Your task to perform on an android device: When is my next appointment? Image 0: 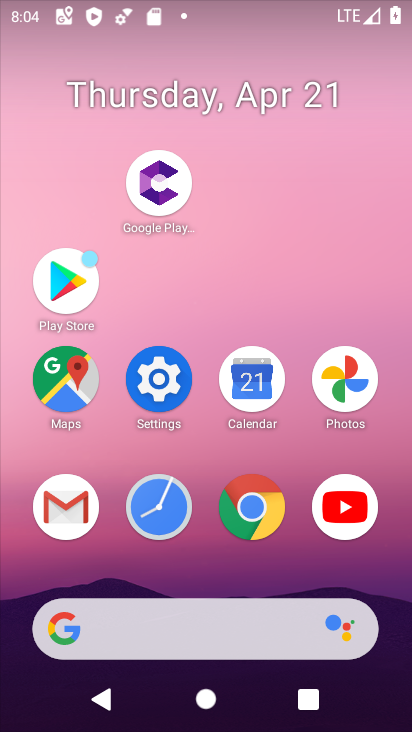
Step 0: click (252, 376)
Your task to perform on an android device: When is my next appointment? Image 1: 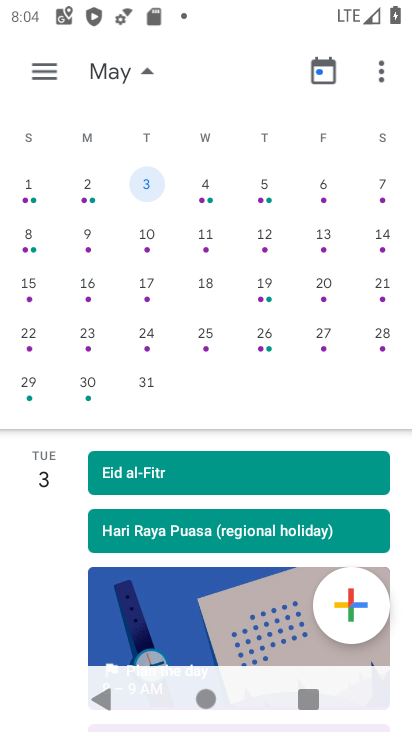
Step 1: click (141, 70)
Your task to perform on an android device: When is my next appointment? Image 2: 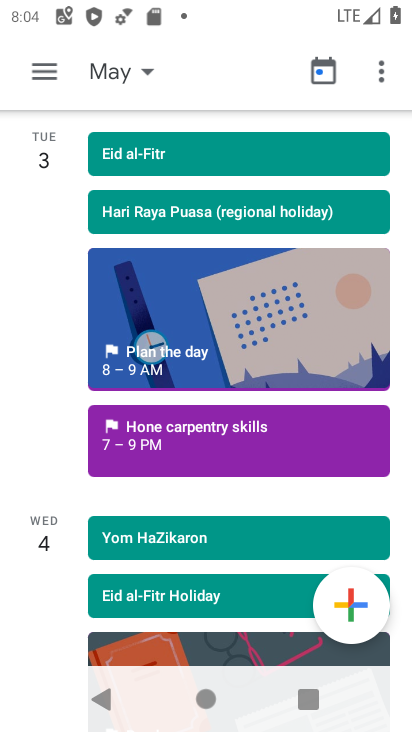
Step 2: click (141, 70)
Your task to perform on an android device: When is my next appointment? Image 3: 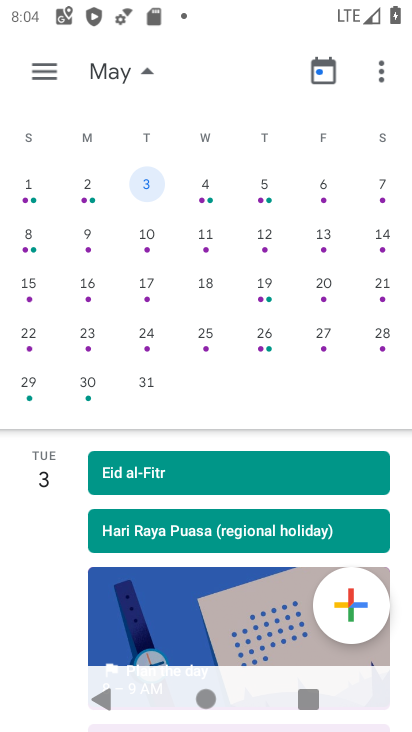
Step 3: drag from (50, 256) to (400, 335)
Your task to perform on an android device: When is my next appointment? Image 4: 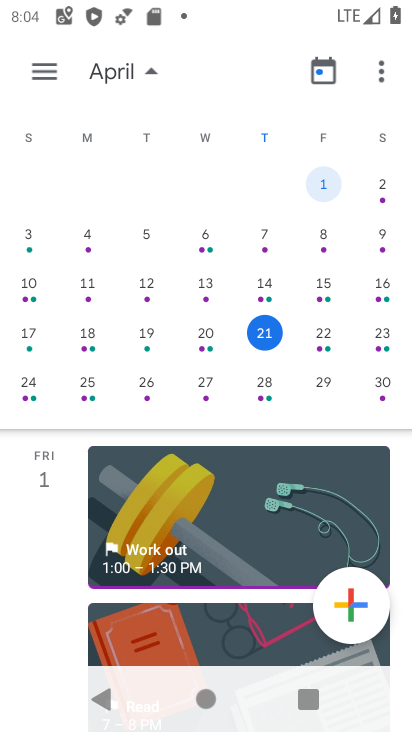
Step 4: click (264, 336)
Your task to perform on an android device: When is my next appointment? Image 5: 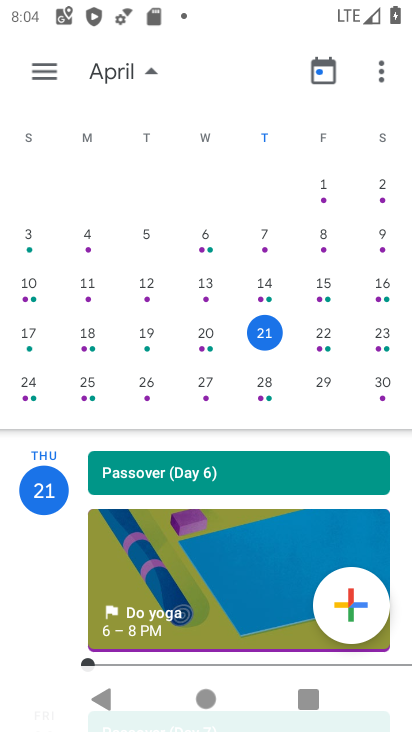
Step 5: task complete